Your task to perform on an android device: turn on javascript in the chrome app Image 0: 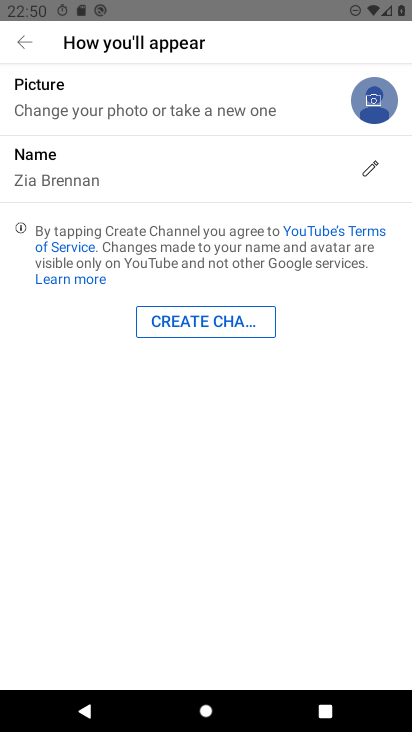
Step 0: drag from (330, 597) to (399, 490)
Your task to perform on an android device: turn on javascript in the chrome app Image 1: 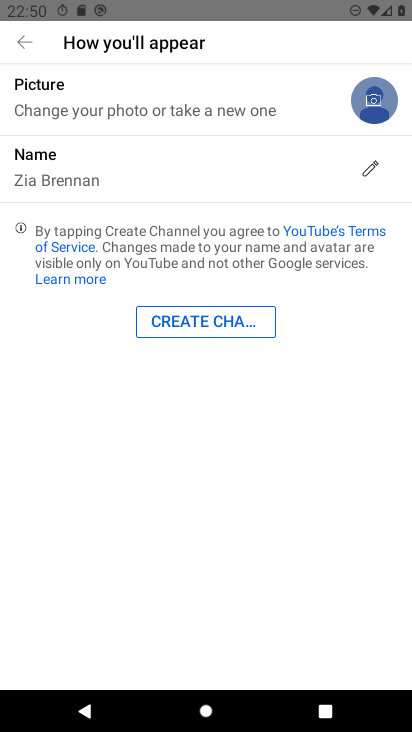
Step 1: press home button
Your task to perform on an android device: turn on javascript in the chrome app Image 2: 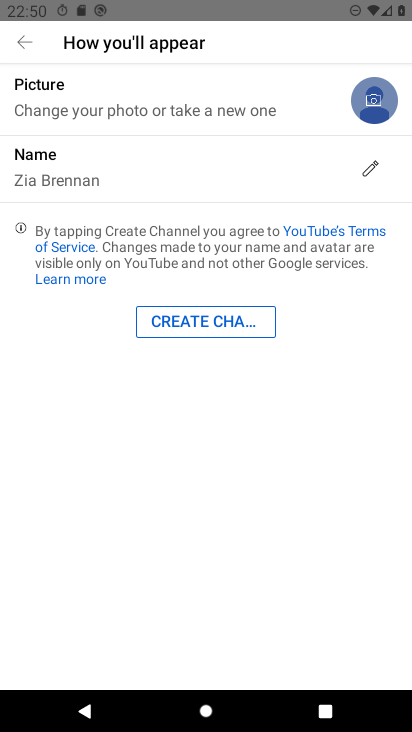
Step 2: drag from (399, 490) to (409, 541)
Your task to perform on an android device: turn on javascript in the chrome app Image 3: 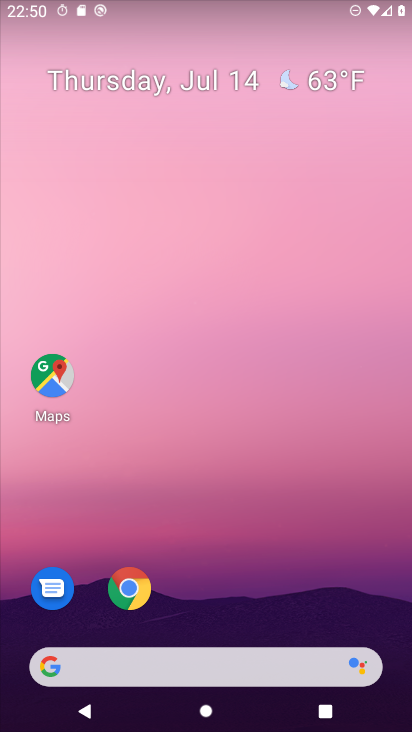
Step 3: drag from (335, 602) to (378, 81)
Your task to perform on an android device: turn on javascript in the chrome app Image 4: 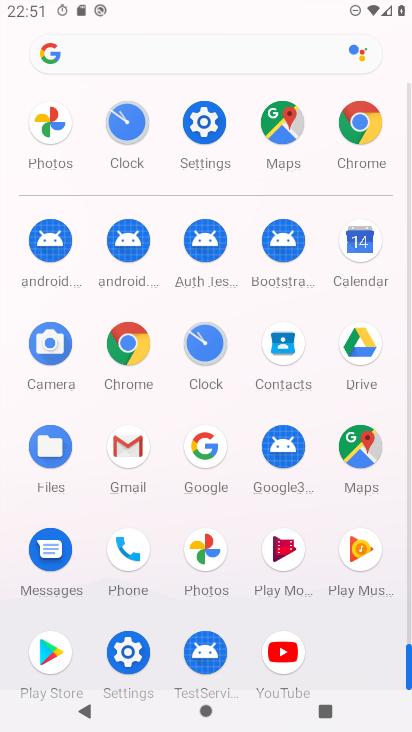
Step 4: click (366, 128)
Your task to perform on an android device: turn on javascript in the chrome app Image 5: 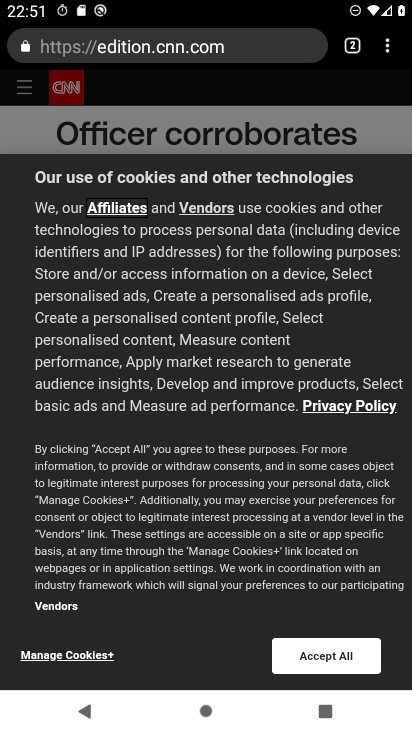
Step 5: click (387, 50)
Your task to perform on an android device: turn on javascript in the chrome app Image 6: 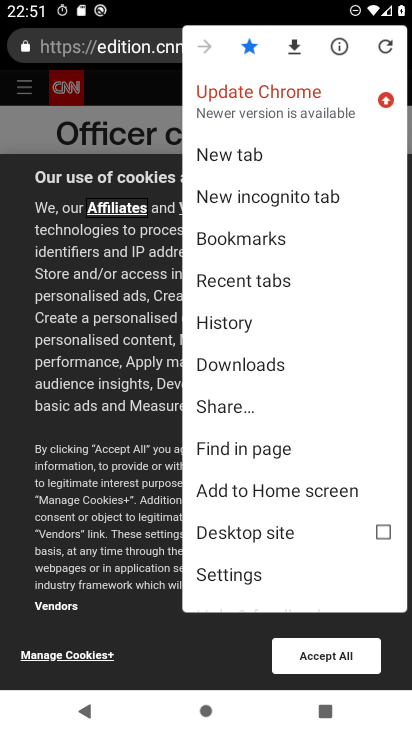
Step 6: click (261, 577)
Your task to perform on an android device: turn on javascript in the chrome app Image 7: 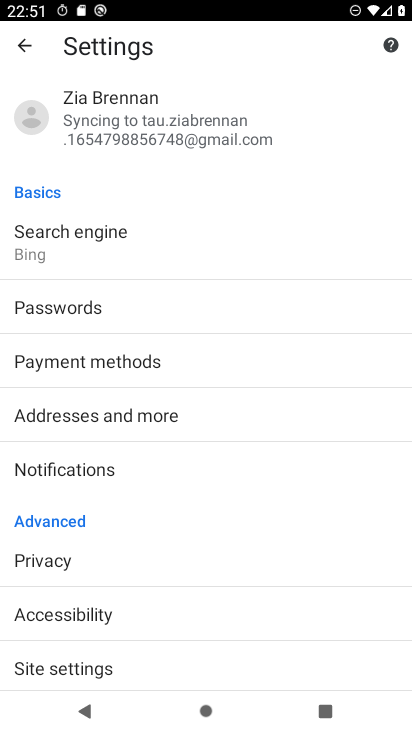
Step 7: drag from (348, 568) to (349, 448)
Your task to perform on an android device: turn on javascript in the chrome app Image 8: 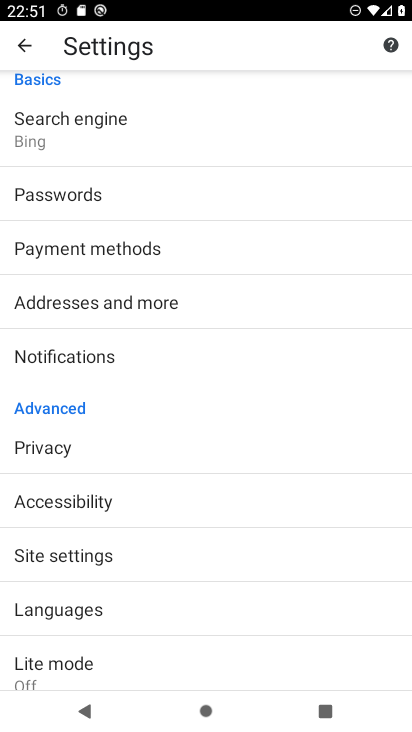
Step 8: drag from (314, 551) to (343, 303)
Your task to perform on an android device: turn on javascript in the chrome app Image 9: 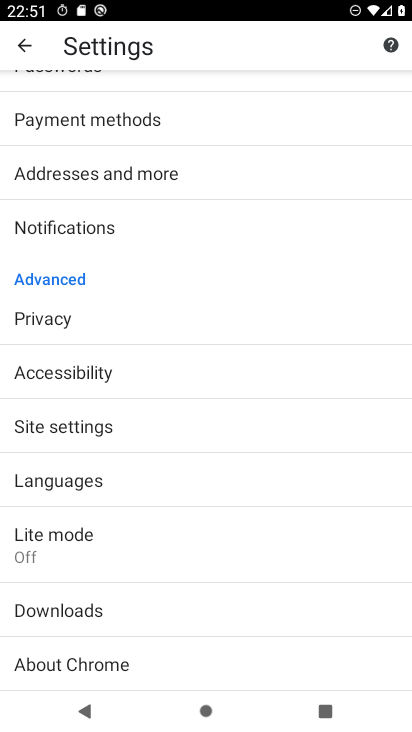
Step 9: drag from (328, 260) to (318, 382)
Your task to perform on an android device: turn on javascript in the chrome app Image 10: 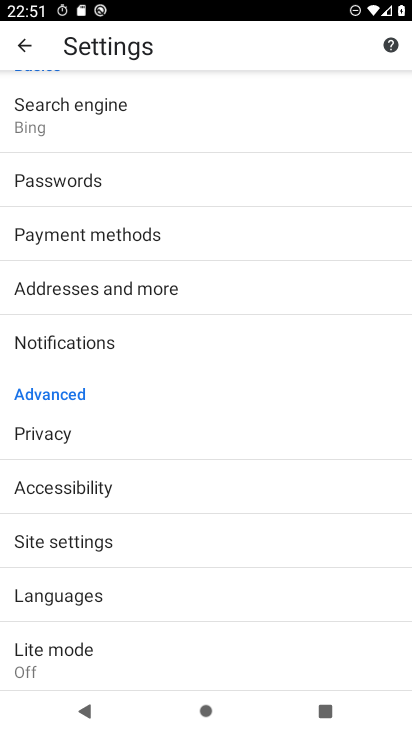
Step 10: click (309, 536)
Your task to perform on an android device: turn on javascript in the chrome app Image 11: 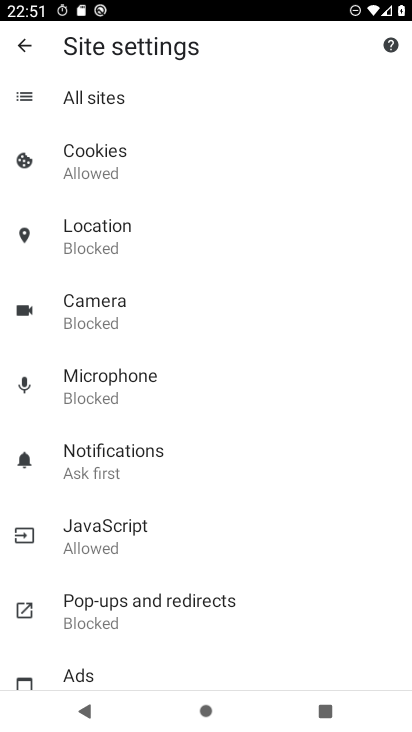
Step 11: drag from (303, 450) to (316, 360)
Your task to perform on an android device: turn on javascript in the chrome app Image 12: 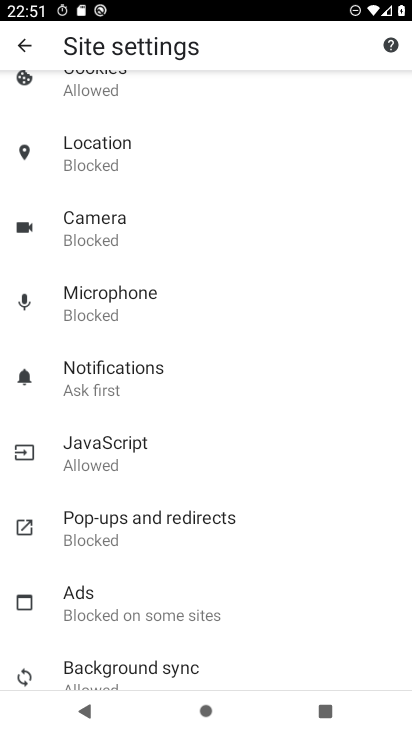
Step 12: drag from (330, 497) to (342, 381)
Your task to perform on an android device: turn on javascript in the chrome app Image 13: 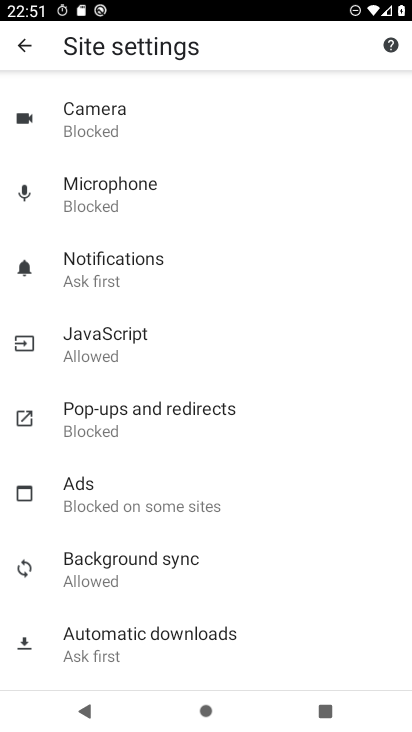
Step 13: click (174, 344)
Your task to perform on an android device: turn on javascript in the chrome app Image 14: 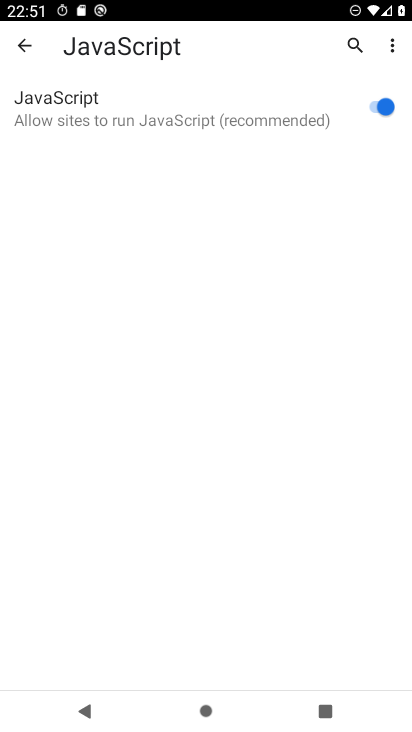
Step 14: task complete